Your task to perform on an android device: toggle airplane mode Image 0: 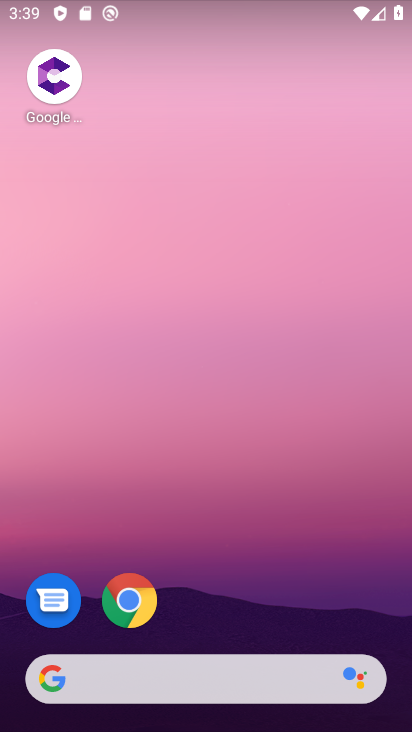
Step 0: drag from (238, 604) to (214, 114)
Your task to perform on an android device: toggle airplane mode Image 1: 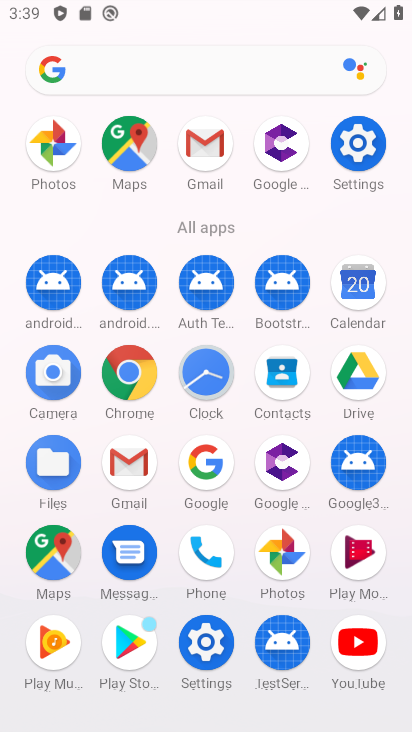
Step 1: click (355, 139)
Your task to perform on an android device: toggle airplane mode Image 2: 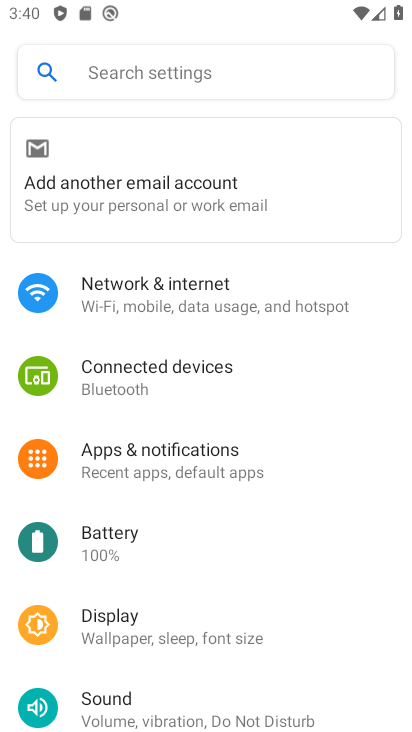
Step 2: click (204, 296)
Your task to perform on an android device: toggle airplane mode Image 3: 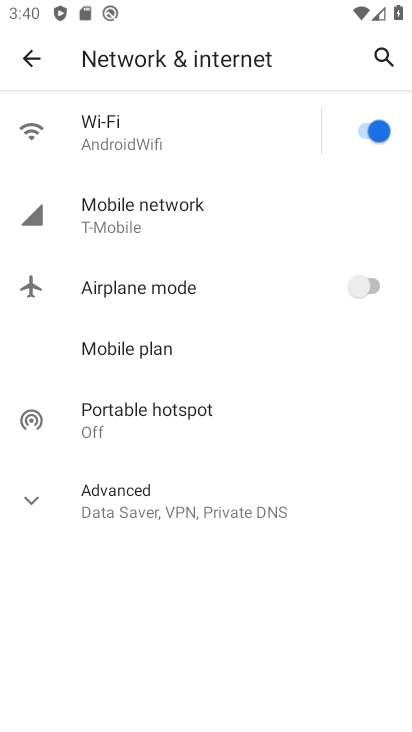
Step 3: click (331, 280)
Your task to perform on an android device: toggle airplane mode Image 4: 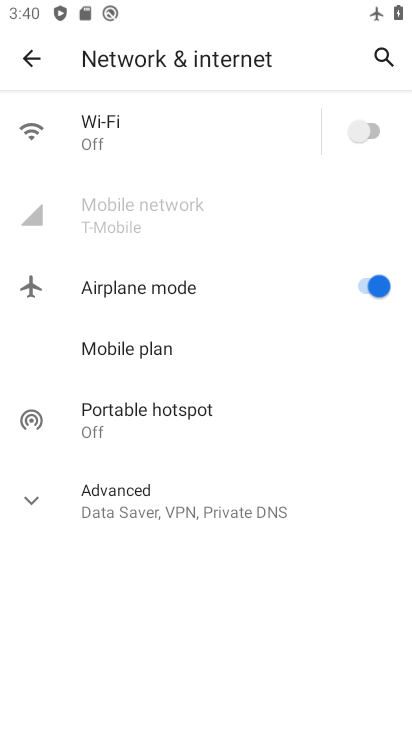
Step 4: task complete